Your task to perform on an android device: toggle wifi Image 0: 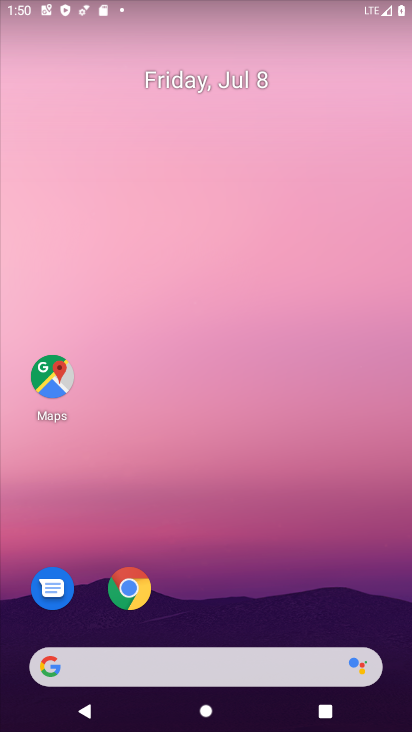
Step 0: press home button
Your task to perform on an android device: toggle wifi Image 1: 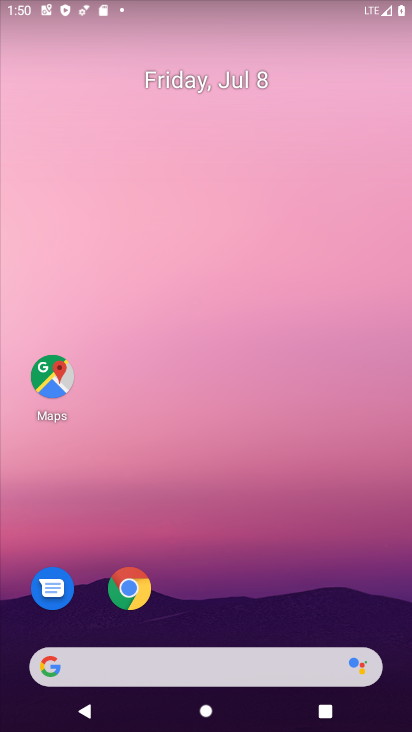
Step 1: drag from (217, 0) to (126, 446)
Your task to perform on an android device: toggle wifi Image 2: 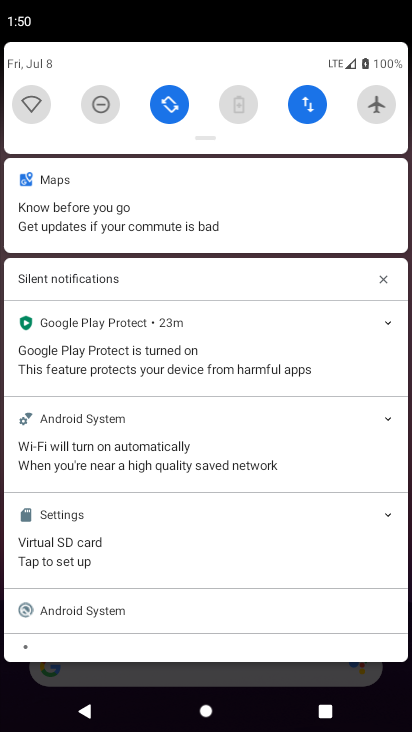
Step 2: click (33, 105)
Your task to perform on an android device: toggle wifi Image 3: 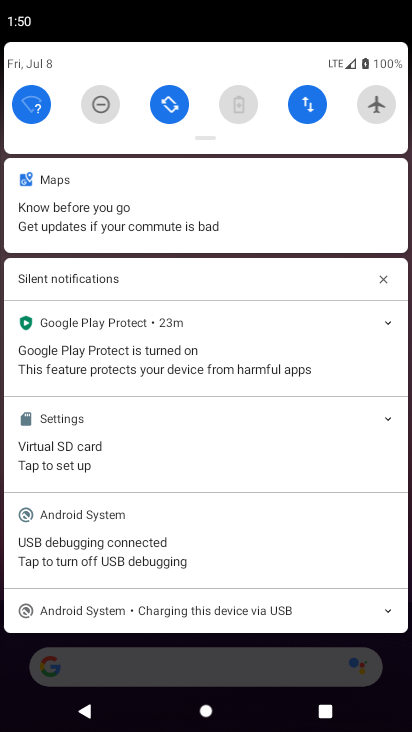
Step 3: task complete